Your task to perform on an android device: Open Amazon Image 0: 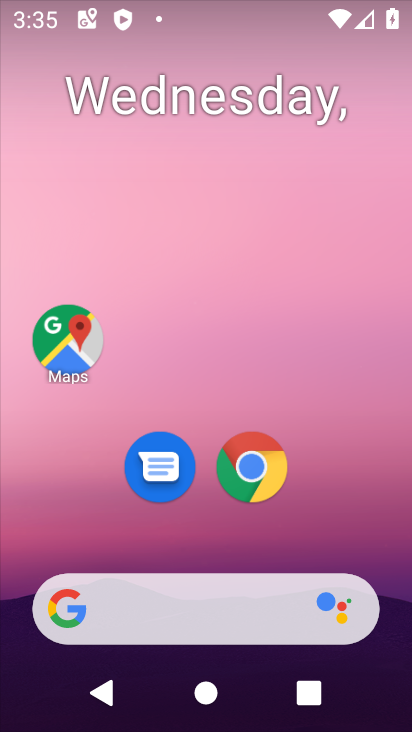
Step 0: click (251, 464)
Your task to perform on an android device: Open Amazon Image 1: 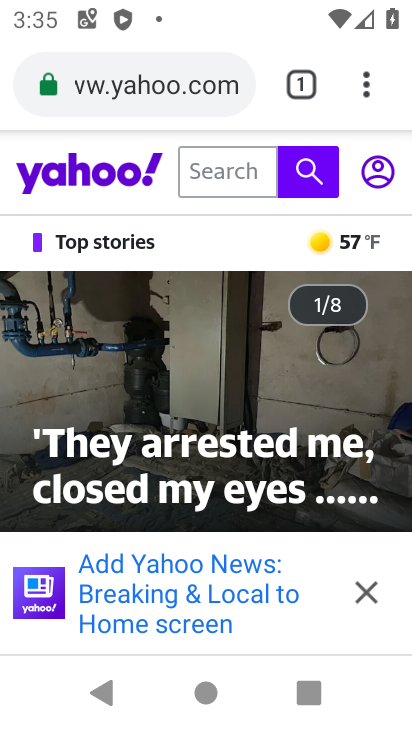
Step 1: click (361, 87)
Your task to perform on an android device: Open Amazon Image 2: 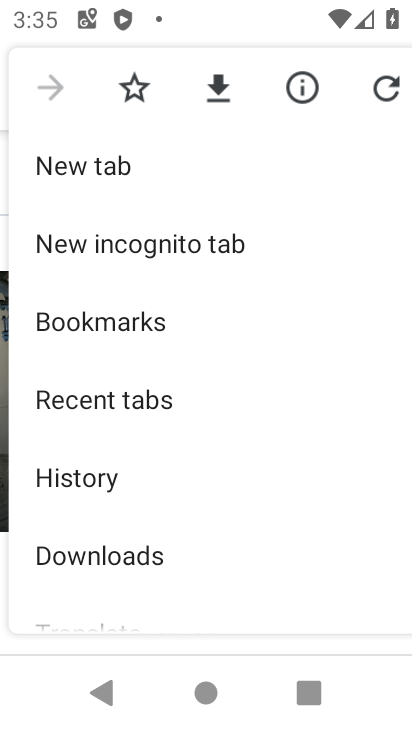
Step 2: click (66, 161)
Your task to perform on an android device: Open Amazon Image 3: 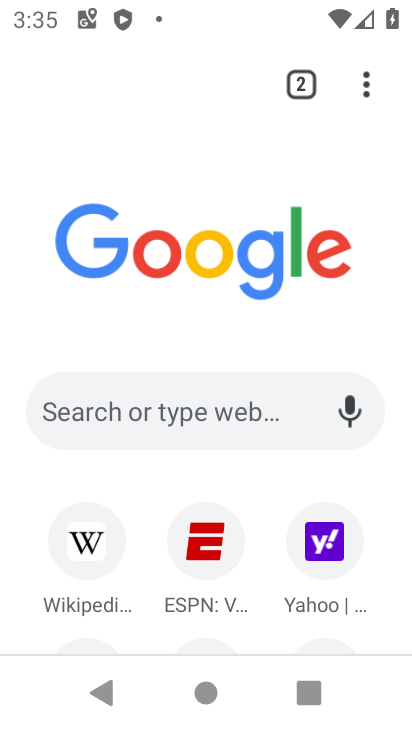
Step 3: drag from (375, 601) to (353, 286)
Your task to perform on an android device: Open Amazon Image 4: 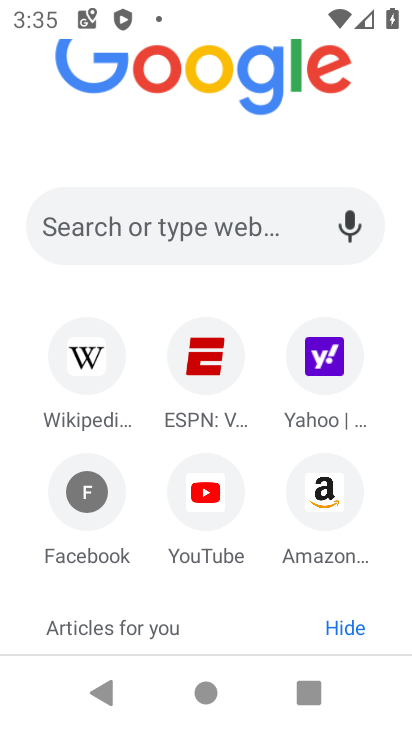
Step 4: click (324, 487)
Your task to perform on an android device: Open Amazon Image 5: 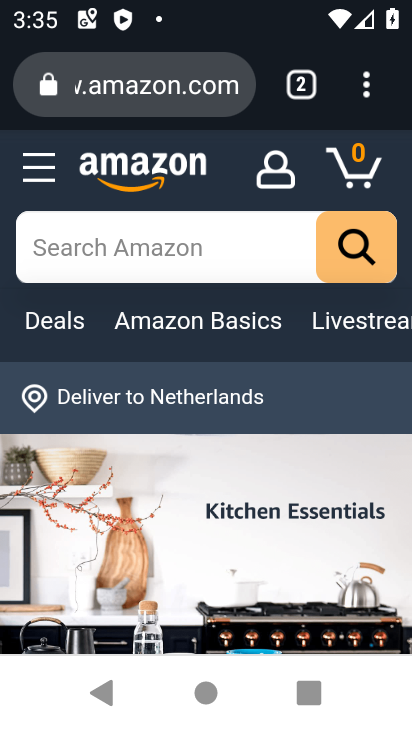
Step 5: task complete